Your task to perform on an android device: create a new album in the google photos Image 0: 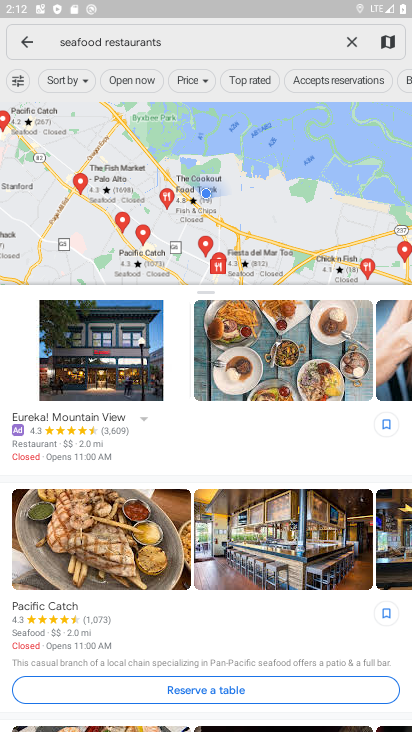
Step 0: press home button
Your task to perform on an android device: create a new album in the google photos Image 1: 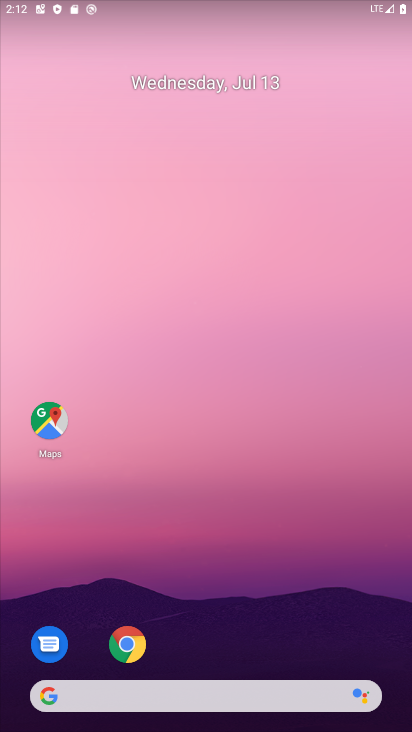
Step 1: drag from (298, 641) to (251, 118)
Your task to perform on an android device: create a new album in the google photos Image 2: 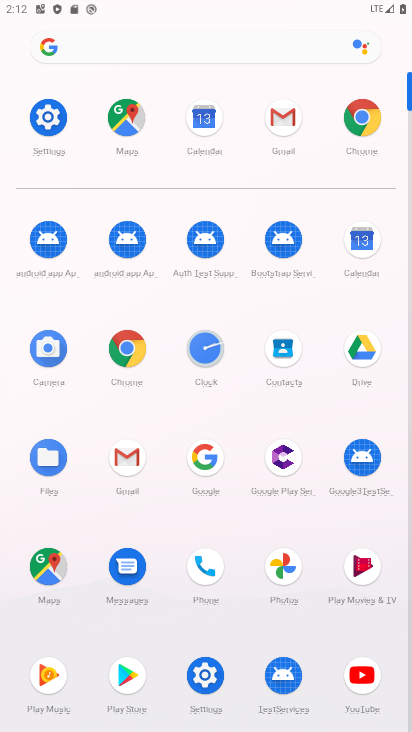
Step 2: click (287, 577)
Your task to perform on an android device: create a new album in the google photos Image 3: 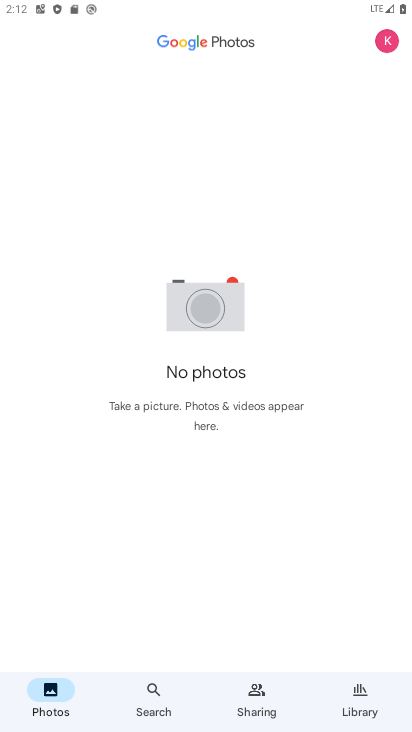
Step 3: click (368, 706)
Your task to perform on an android device: create a new album in the google photos Image 4: 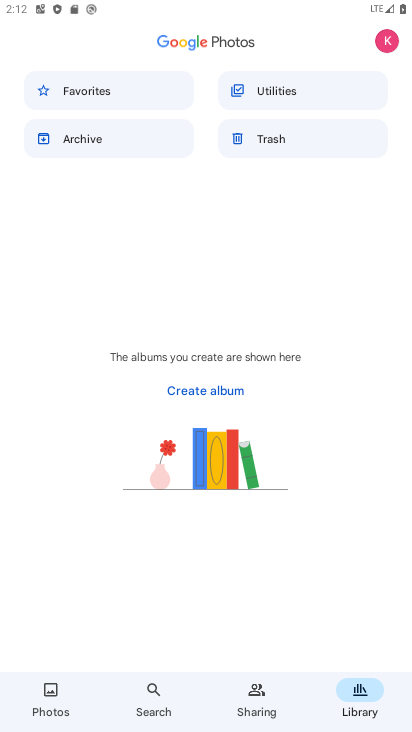
Step 4: click (227, 392)
Your task to perform on an android device: create a new album in the google photos Image 5: 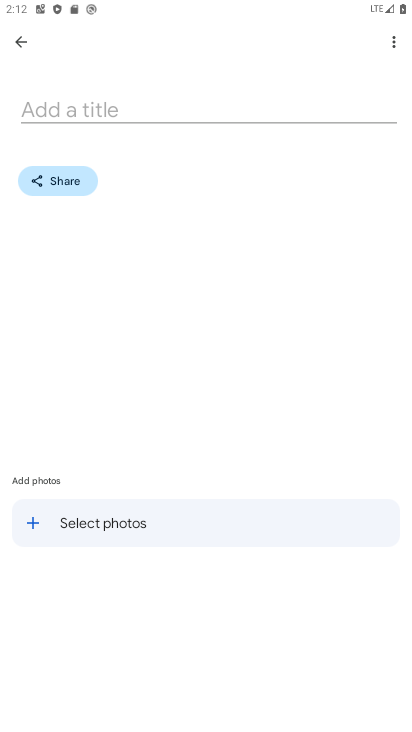
Step 5: click (165, 112)
Your task to perform on an android device: create a new album in the google photos Image 6: 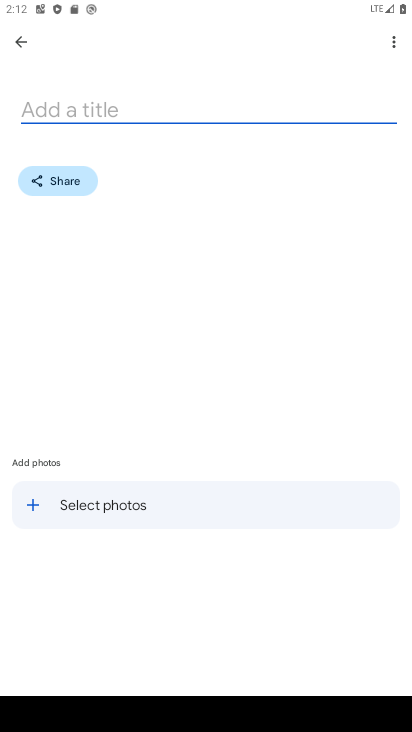
Step 6: type "hanji"
Your task to perform on an android device: create a new album in the google photos Image 7: 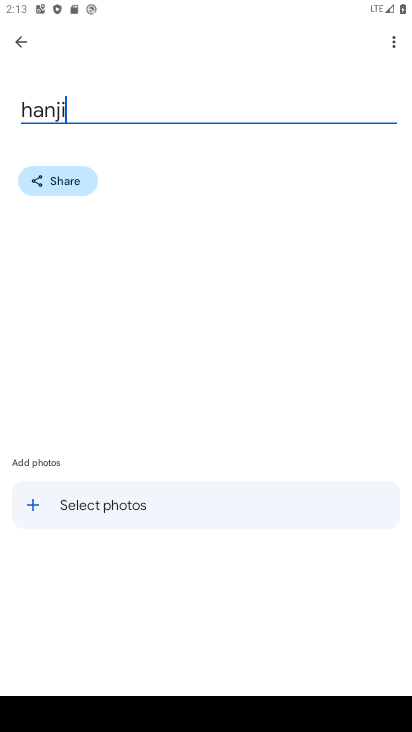
Step 7: click (274, 490)
Your task to perform on an android device: create a new album in the google photos Image 8: 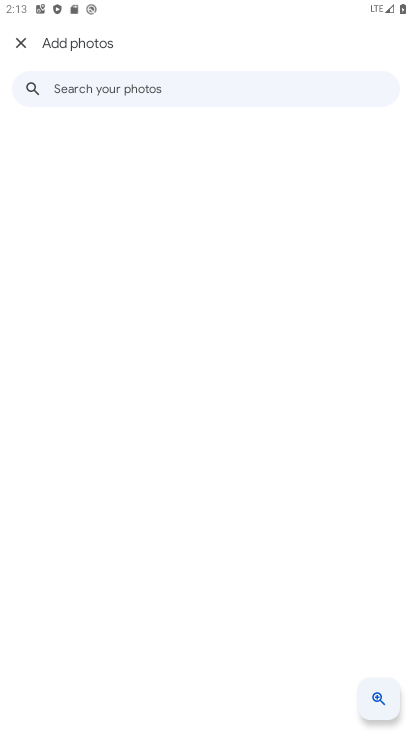
Step 8: click (112, 500)
Your task to perform on an android device: create a new album in the google photos Image 9: 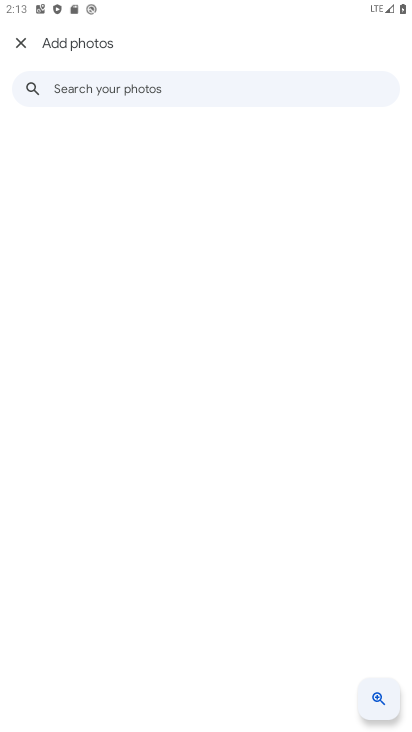
Step 9: click (23, 39)
Your task to perform on an android device: create a new album in the google photos Image 10: 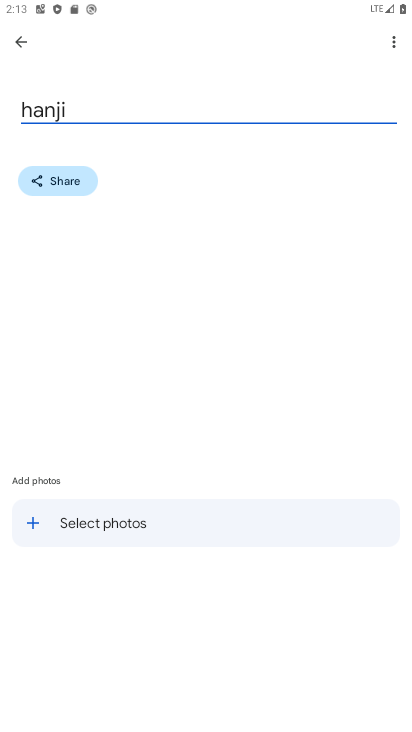
Step 10: task complete